Your task to perform on an android device: What's the weather today? Image 0: 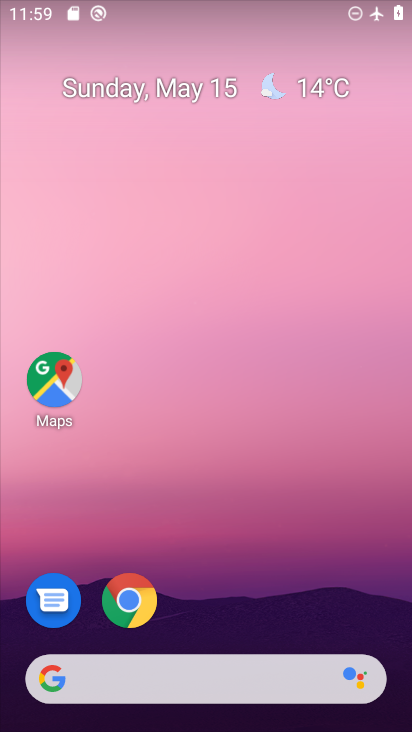
Step 0: click (319, 89)
Your task to perform on an android device: What's the weather today? Image 1: 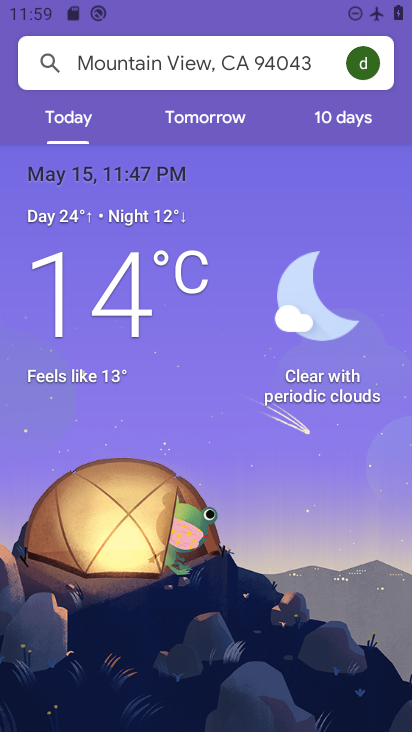
Step 1: task complete